Your task to perform on an android device: Open calendar and show me the first week of next month Image 0: 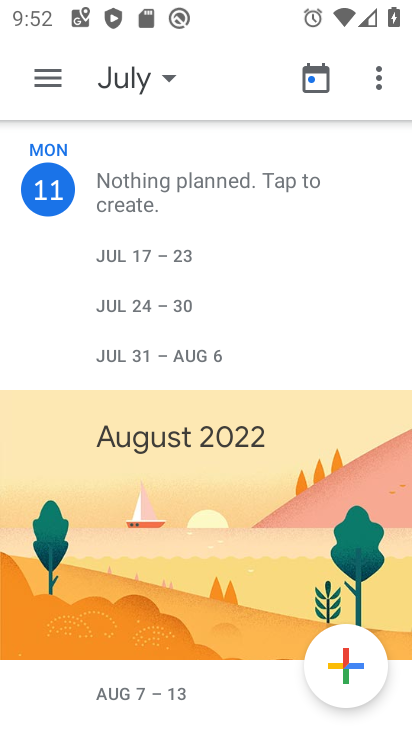
Step 0: press home button
Your task to perform on an android device: Open calendar and show me the first week of next month Image 1: 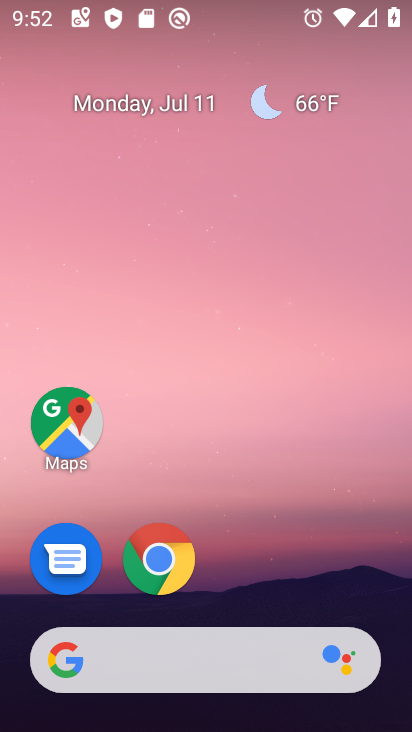
Step 1: drag from (342, 575) to (316, 241)
Your task to perform on an android device: Open calendar and show me the first week of next month Image 2: 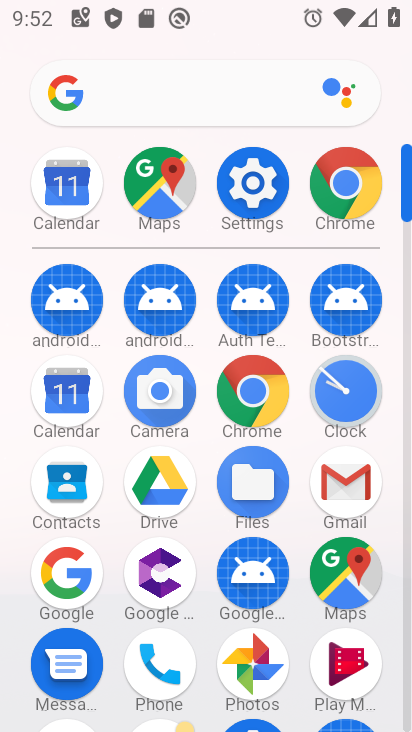
Step 2: click (71, 396)
Your task to perform on an android device: Open calendar and show me the first week of next month Image 3: 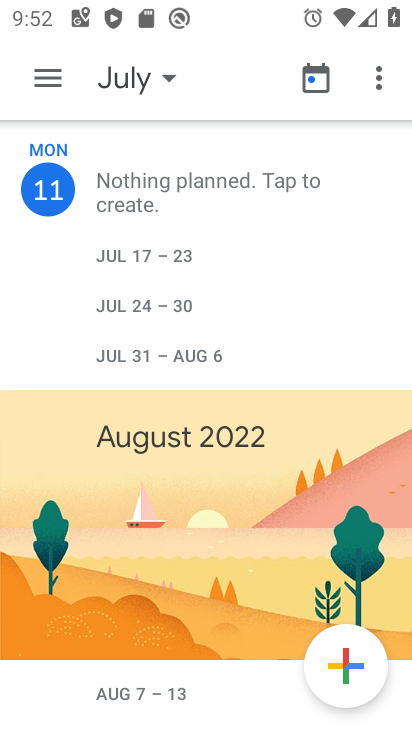
Step 3: click (170, 81)
Your task to perform on an android device: Open calendar and show me the first week of next month Image 4: 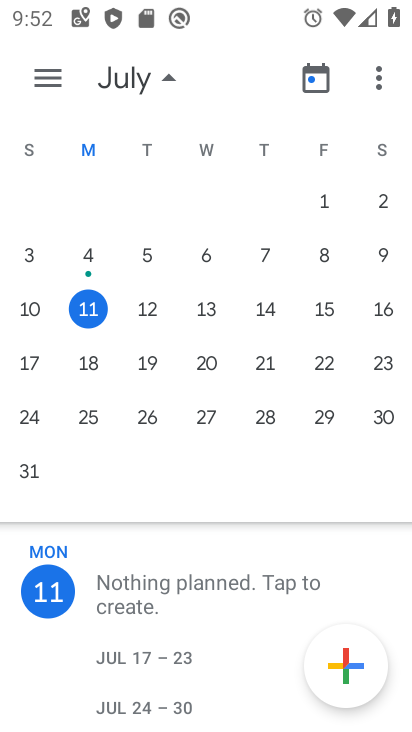
Step 4: task complete